Your task to perform on an android device: Go to Google maps Image 0: 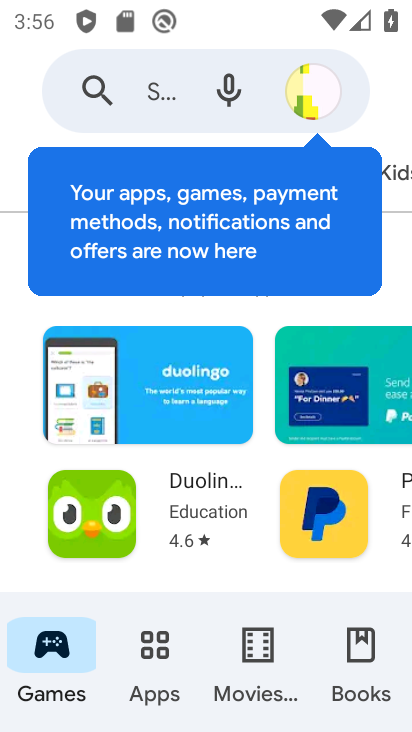
Step 0: press home button
Your task to perform on an android device: Go to Google maps Image 1: 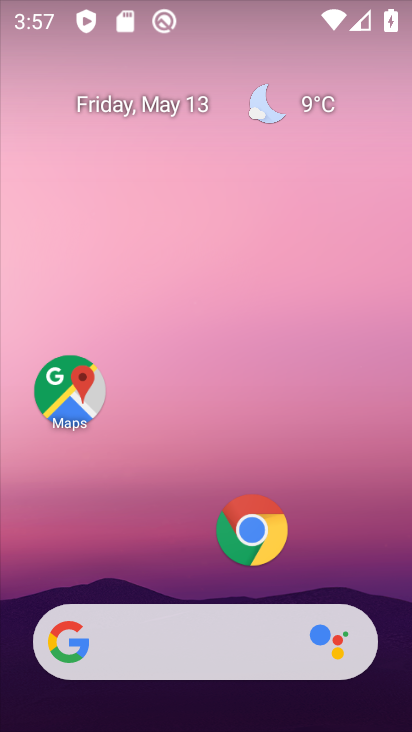
Step 1: drag from (203, 579) to (206, 35)
Your task to perform on an android device: Go to Google maps Image 2: 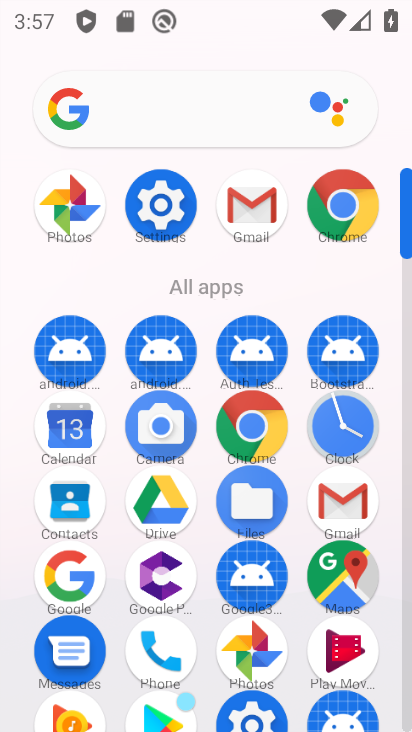
Step 2: click (344, 568)
Your task to perform on an android device: Go to Google maps Image 3: 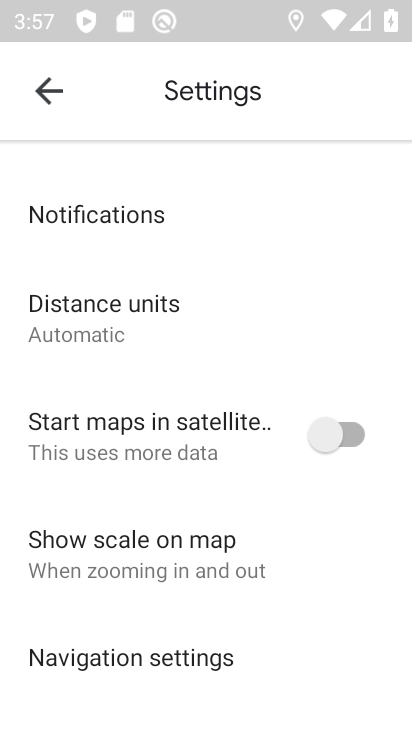
Step 3: click (49, 92)
Your task to perform on an android device: Go to Google maps Image 4: 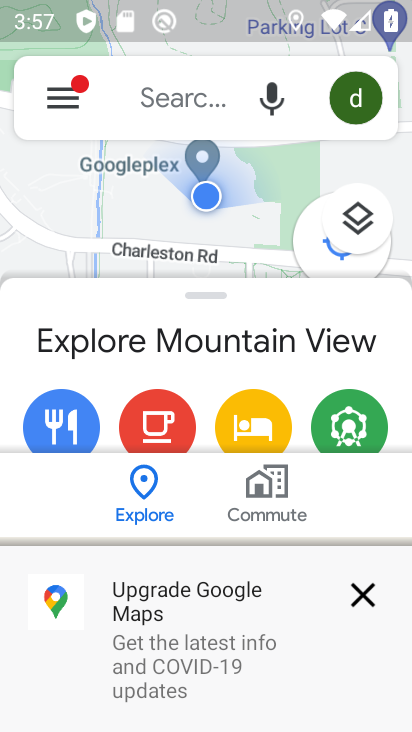
Step 4: click (361, 592)
Your task to perform on an android device: Go to Google maps Image 5: 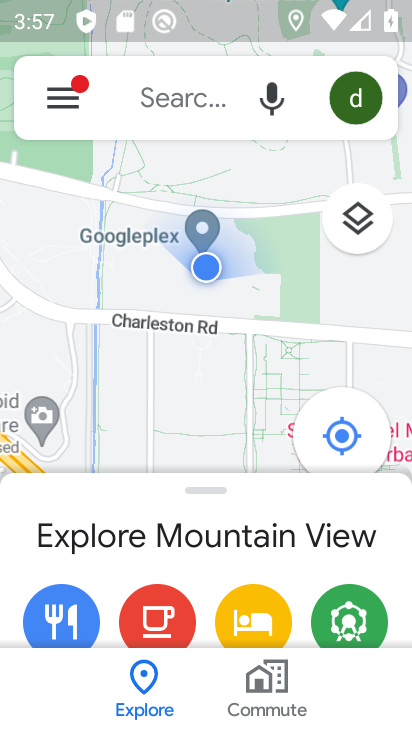
Step 5: task complete